Your task to perform on an android device: What's on my calendar tomorrow? Image 0: 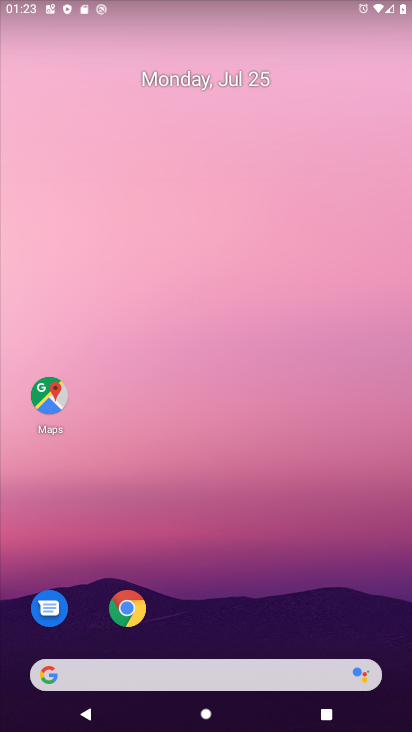
Step 0: drag from (224, 650) to (125, 33)
Your task to perform on an android device: What's on my calendar tomorrow? Image 1: 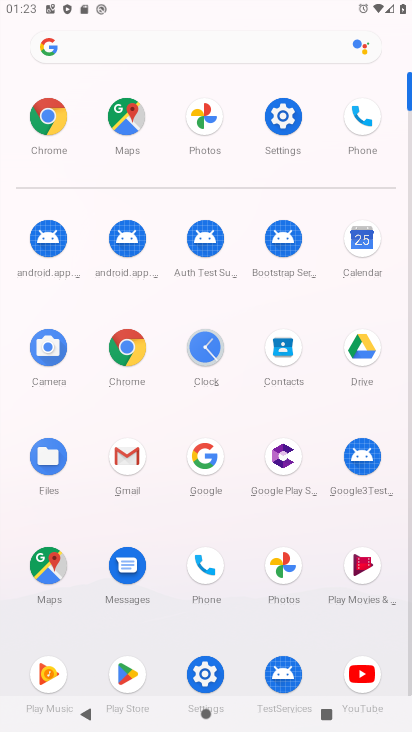
Step 1: click (360, 246)
Your task to perform on an android device: What's on my calendar tomorrow? Image 2: 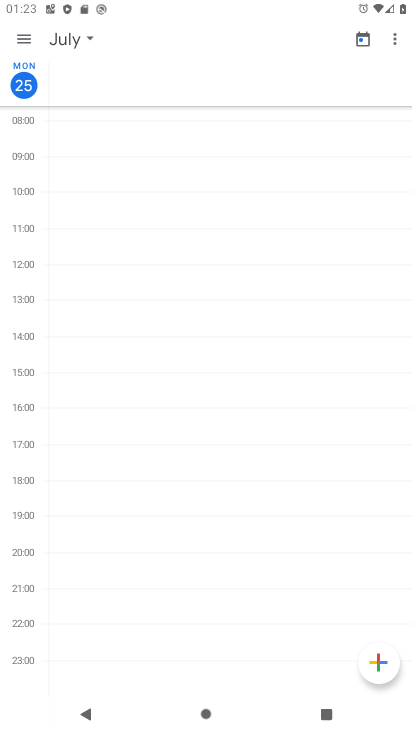
Step 2: click (34, 41)
Your task to perform on an android device: What's on my calendar tomorrow? Image 3: 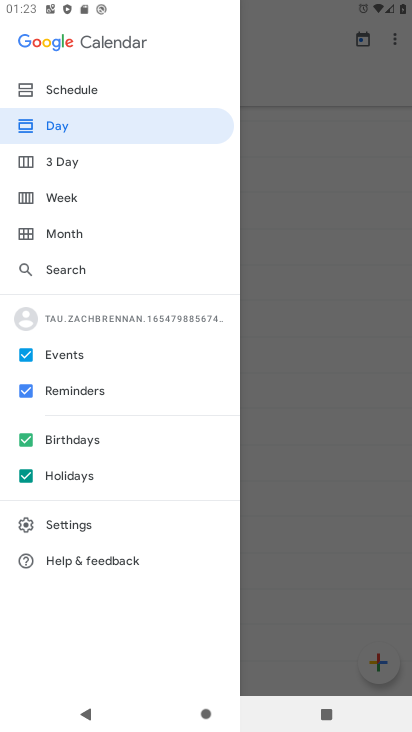
Step 3: click (66, 189)
Your task to perform on an android device: What's on my calendar tomorrow? Image 4: 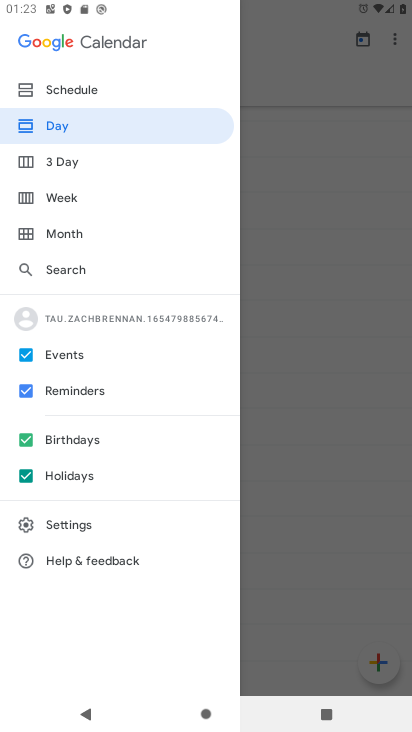
Step 4: click (66, 196)
Your task to perform on an android device: What's on my calendar tomorrow? Image 5: 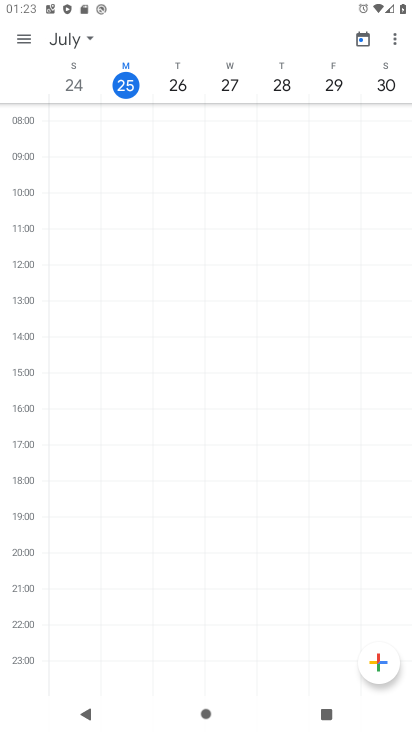
Step 5: click (179, 82)
Your task to perform on an android device: What's on my calendar tomorrow? Image 6: 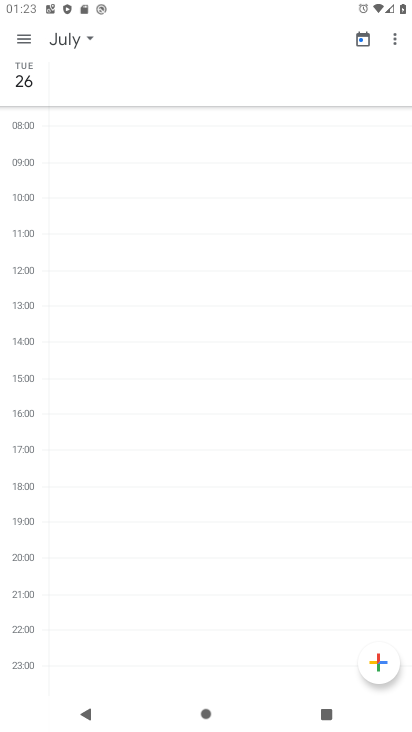
Step 6: task complete